Your task to perform on an android device: Open Amazon Image 0: 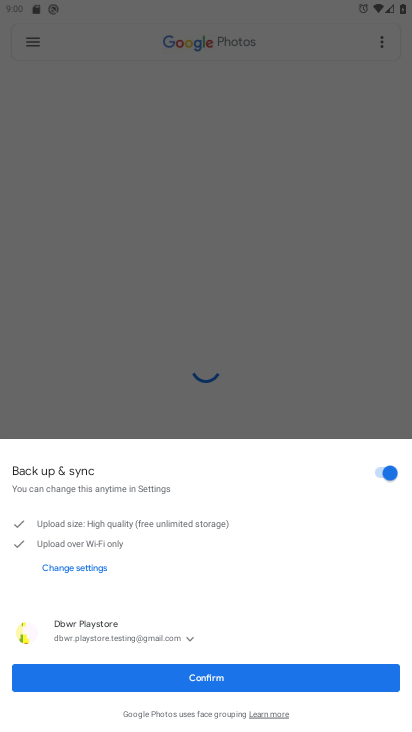
Step 0: press home button
Your task to perform on an android device: Open Amazon Image 1: 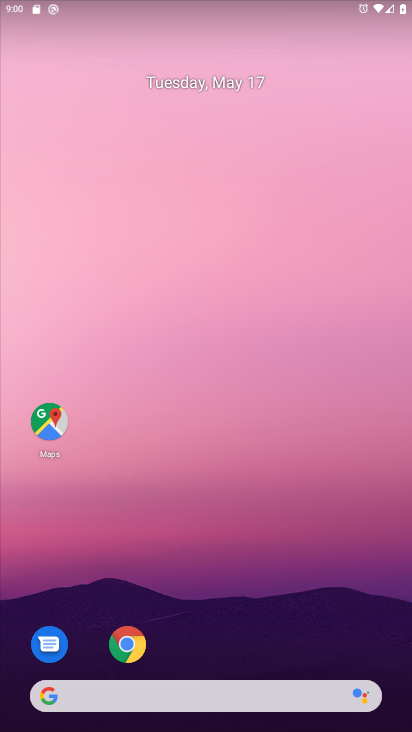
Step 1: click (125, 641)
Your task to perform on an android device: Open Amazon Image 2: 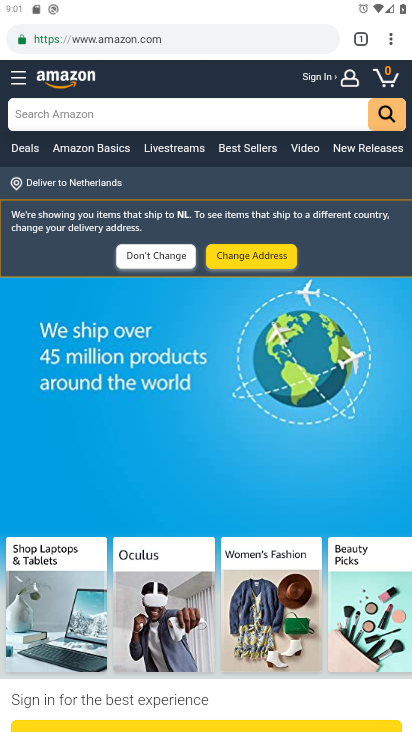
Step 2: task complete